Your task to perform on an android device: add a contact Image 0: 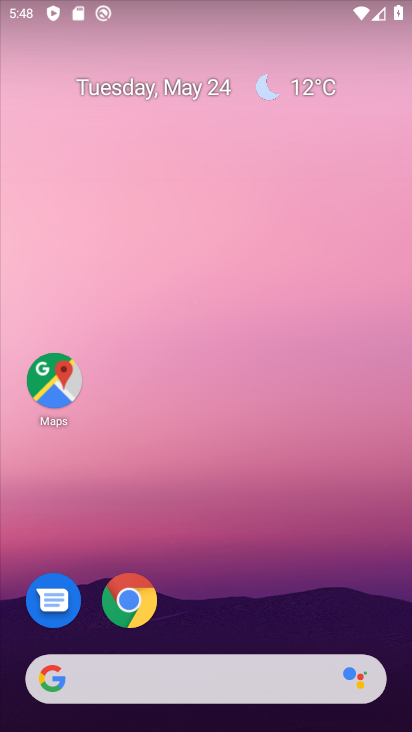
Step 0: drag from (223, 643) to (294, 85)
Your task to perform on an android device: add a contact Image 1: 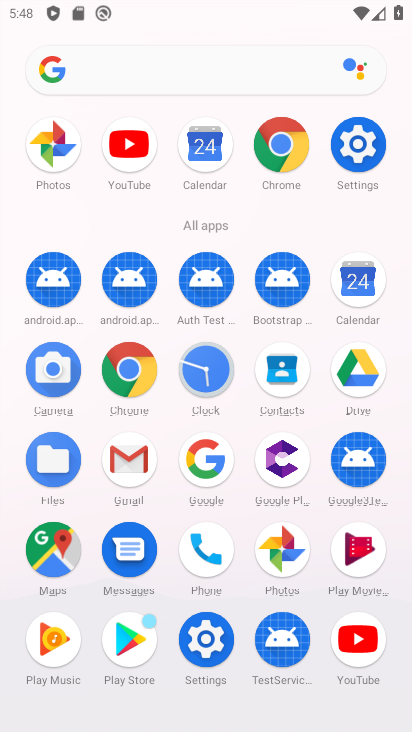
Step 1: click (292, 382)
Your task to perform on an android device: add a contact Image 2: 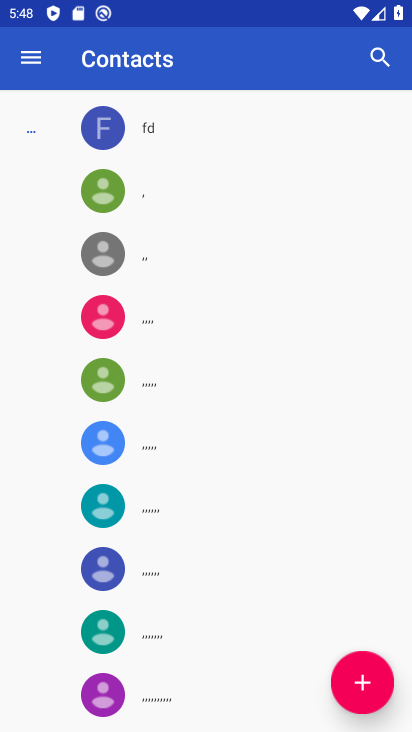
Step 2: click (346, 687)
Your task to perform on an android device: add a contact Image 3: 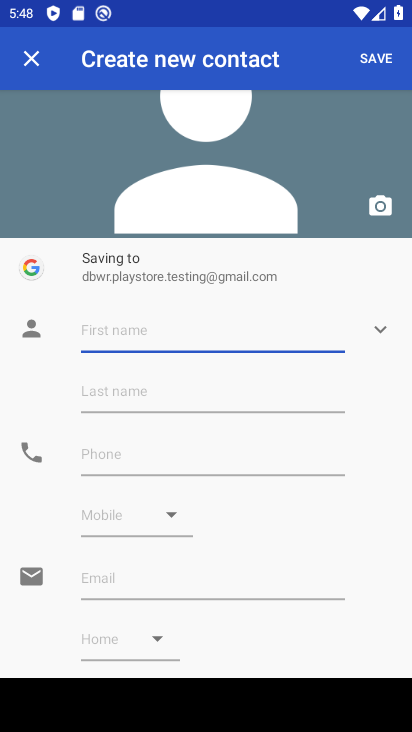
Step 3: type "hfhddh"
Your task to perform on an android device: add a contact Image 4: 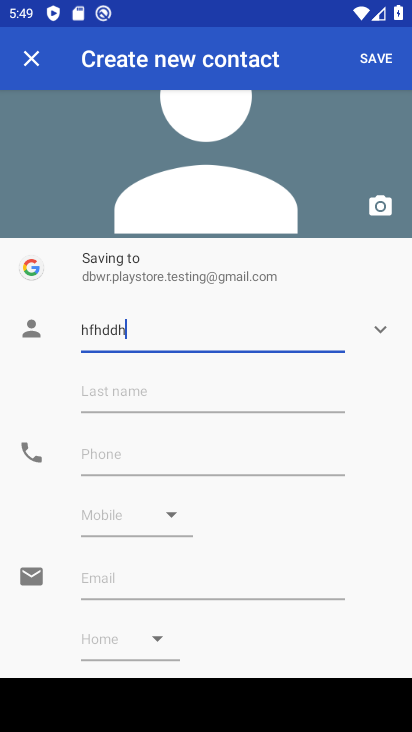
Step 4: click (185, 454)
Your task to perform on an android device: add a contact Image 5: 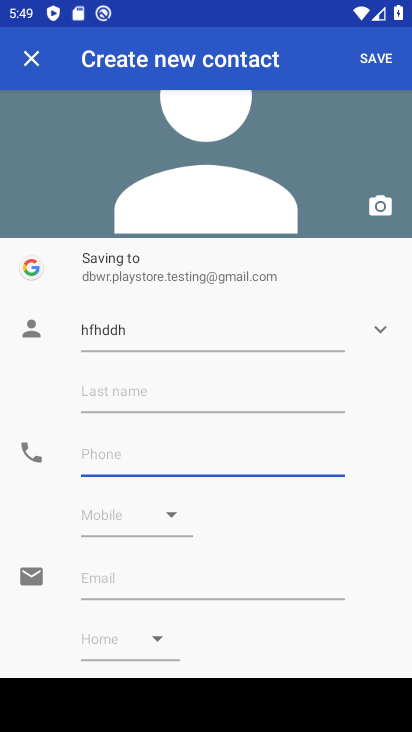
Step 5: type "98767788887"
Your task to perform on an android device: add a contact Image 6: 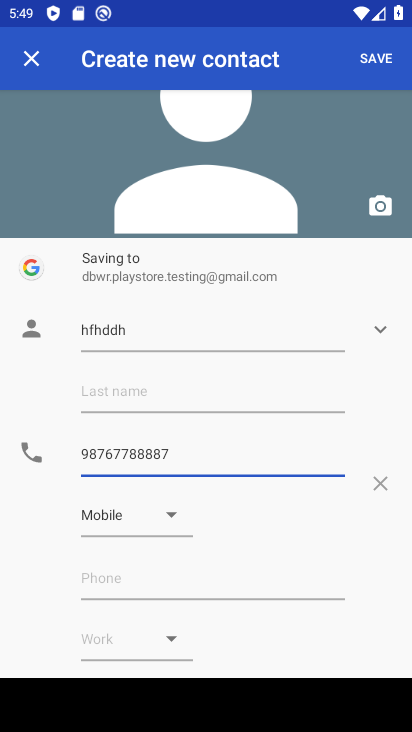
Step 6: click (371, 62)
Your task to perform on an android device: add a contact Image 7: 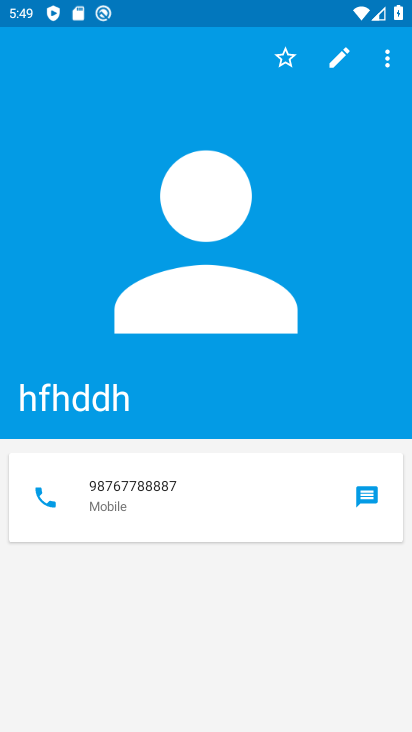
Step 7: task complete